Your task to perform on an android device: toggle data saver in the chrome app Image 0: 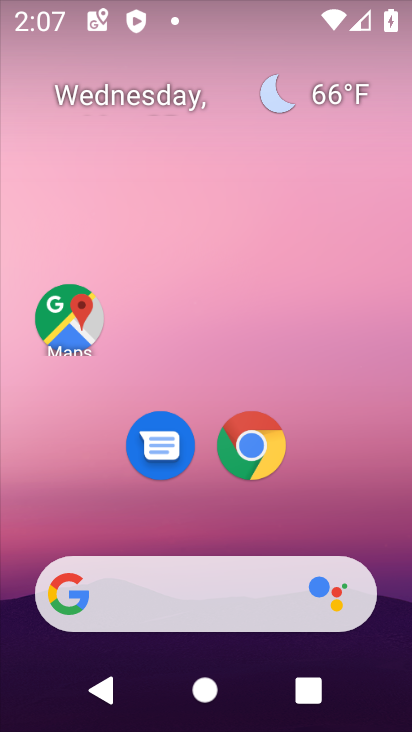
Step 0: click (258, 453)
Your task to perform on an android device: toggle data saver in the chrome app Image 1: 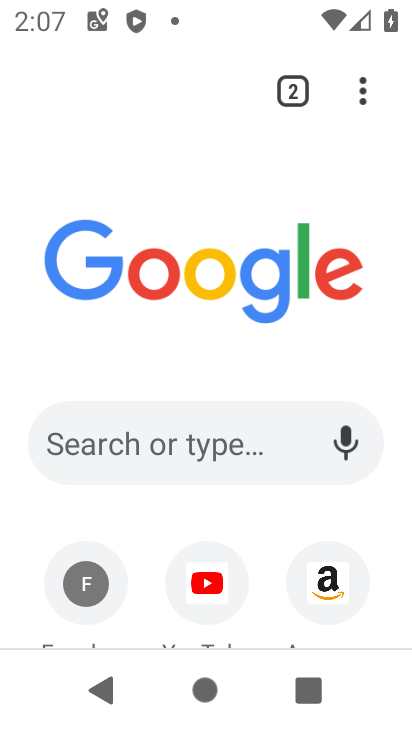
Step 1: click (366, 82)
Your task to perform on an android device: toggle data saver in the chrome app Image 2: 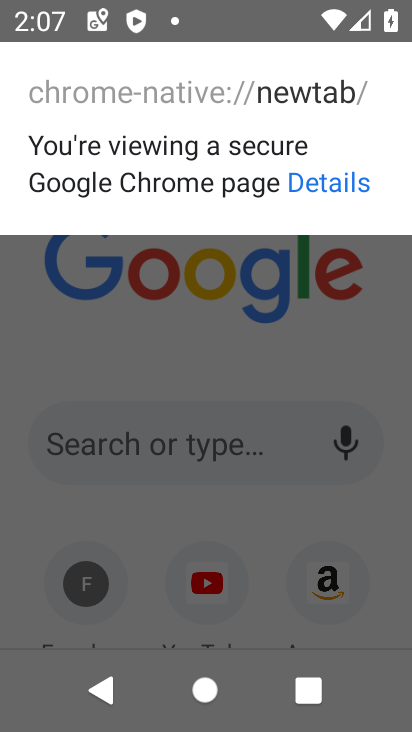
Step 2: press back button
Your task to perform on an android device: toggle data saver in the chrome app Image 3: 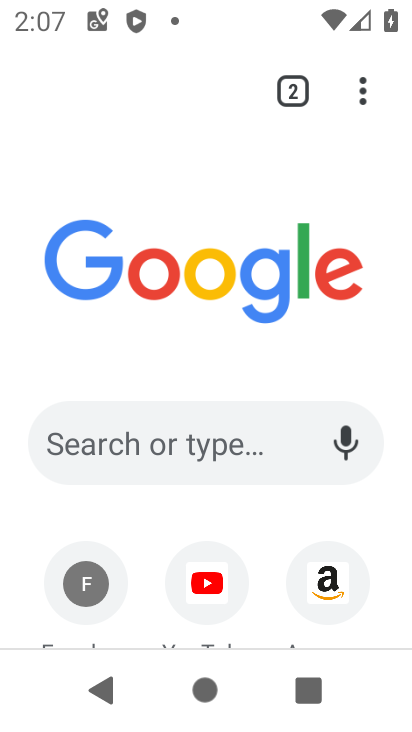
Step 3: click (359, 100)
Your task to perform on an android device: toggle data saver in the chrome app Image 4: 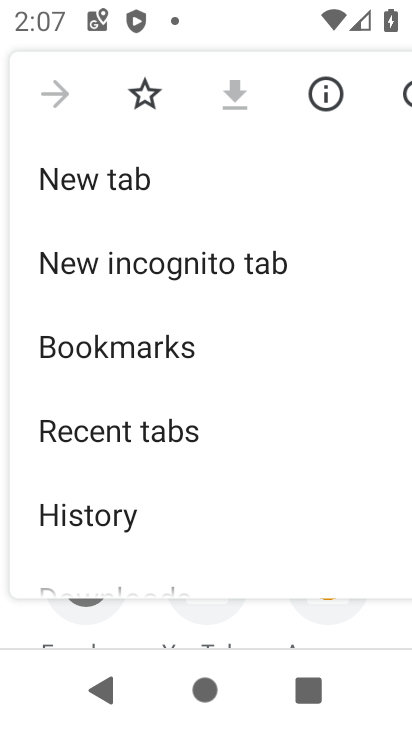
Step 4: drag from (3, 507) to (169, 226)
Your task to perform on an android device: toggle data saver in the chrome app Image 5: 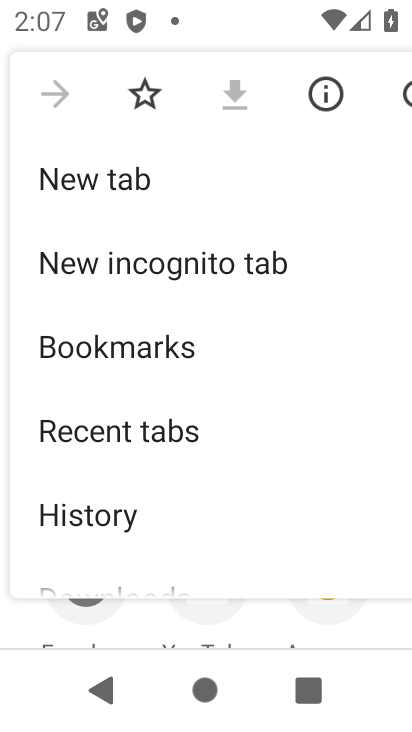
Step 5: drag from (23, 504) to (280, 99)
Your task to perform on an android device: toggle data saver in the chrome app Image 6: 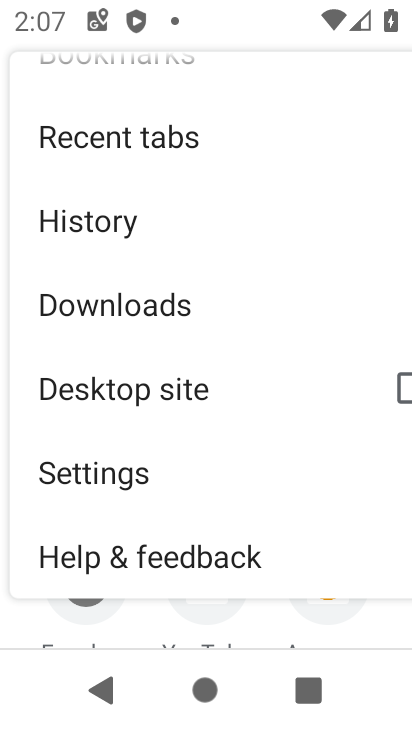
Step 6: click (100, 473)
Your task to perform on an android device: toggle data saver in the chrome app Image 7: 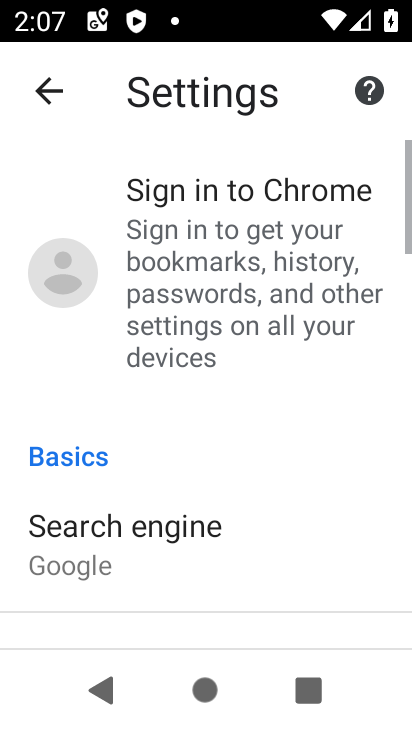
Step 7: drag from (4, 714) to (216, 123)
Your task to perform on an android device: toggle data saver in the chrome app Image 8: 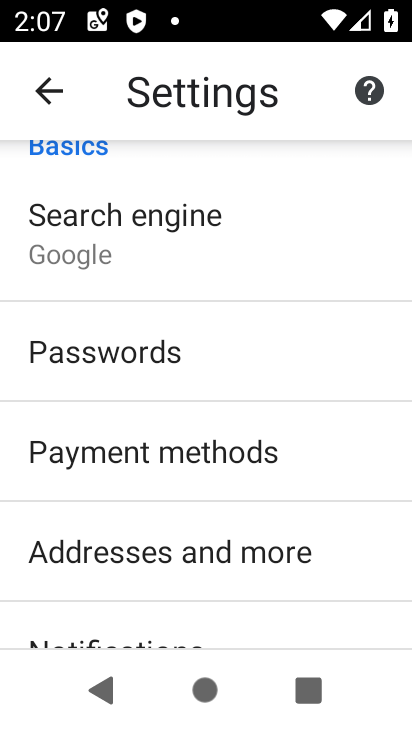
Step 8: drag from (19, 495) to (221, 160)
Your task to perform on an android device: toggle data saver in the chrome app Image 9: 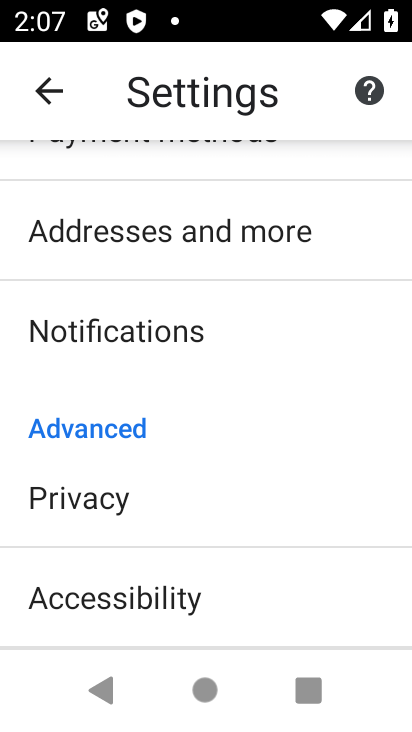
Step 9: drag from (22, 543) to (224, 194)
Your task to perform on an android device: toggle data saver in the chrome app Image 10: 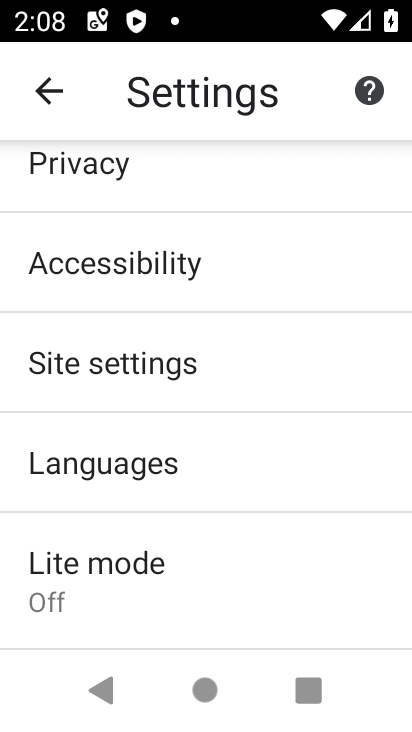
Step 10: click (106, 571)
Your task to perform on an android device: toggle data saver in the chrome app Image 11: 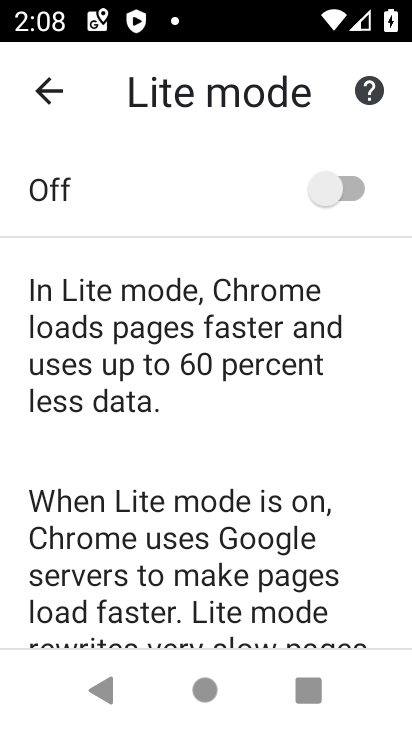
Step 11: click (346, 192)
Your task to perform on an android device: toggle data saver in the chrome app Image 12: 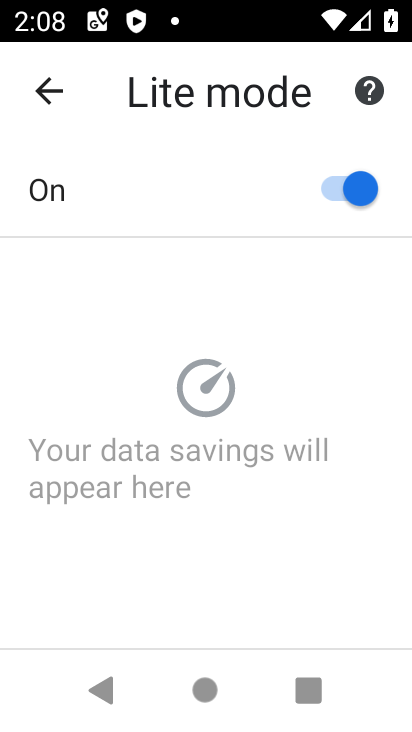
Step 12: task complete